Your task to perform on an android device: What's on my calendar today? Image 0: 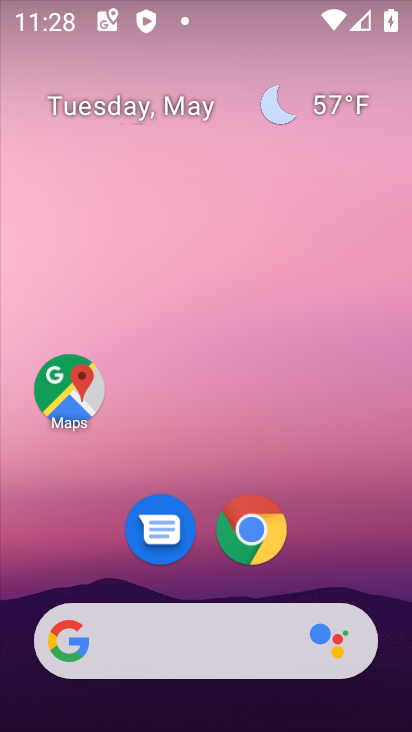
Step 0: click (135, 114)
Your task to perform on an android device: What's on my calendar today? Image 1: 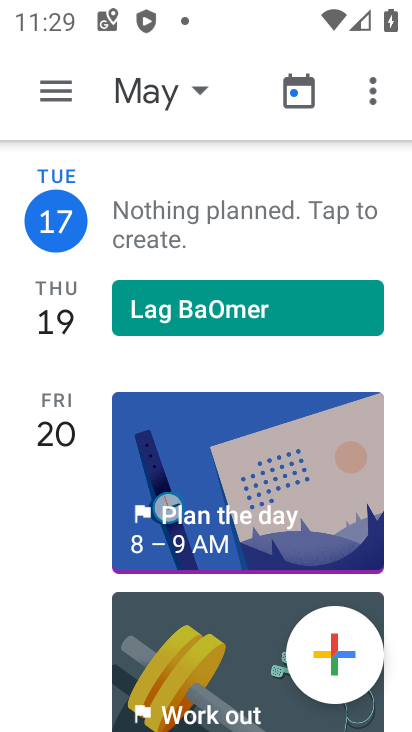
Step 1: task complete